Your task to perform on an android device: turn off notifications in google photos Image 0: 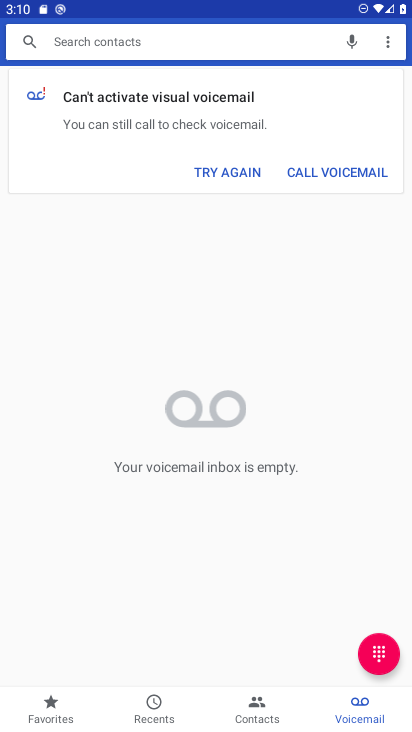
Step 0: press home button
Your task to perform on an android device: turn off notifications in google photos Image 1: 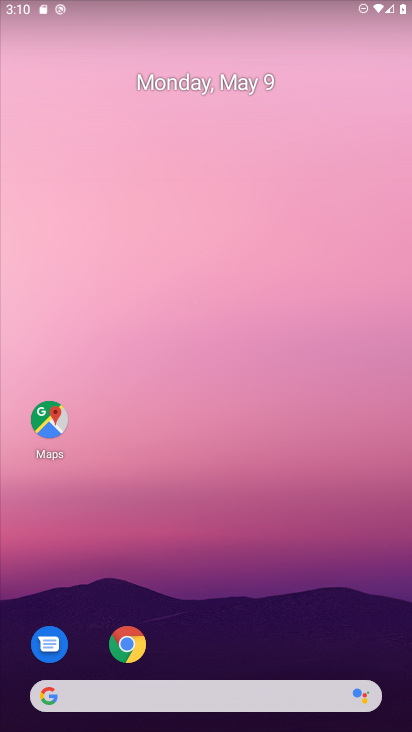
Step 1: click (137, 655)
Your task to perform on an android device: turn off notifications in google photos Image 2: 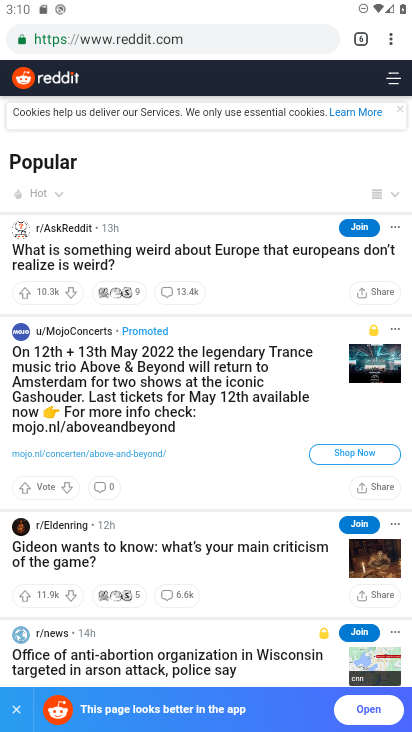
Step 2: click (397, 40)
Your task to perform on an android device: turn off notifications in google photos Image 3: 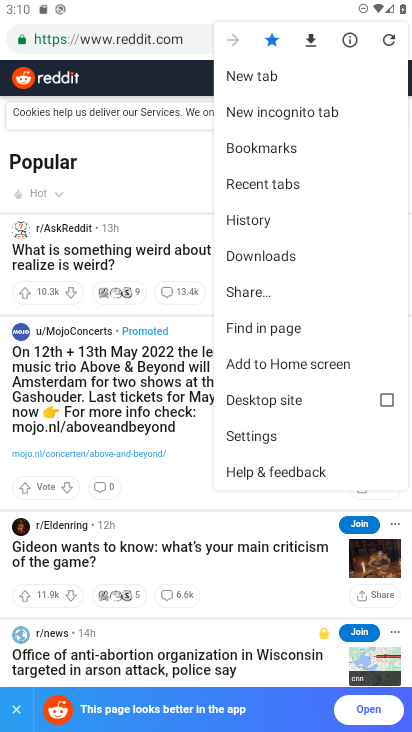
Step 3: press home button
Your task to perform on an android device: turn off notifications in google photos Image 4: 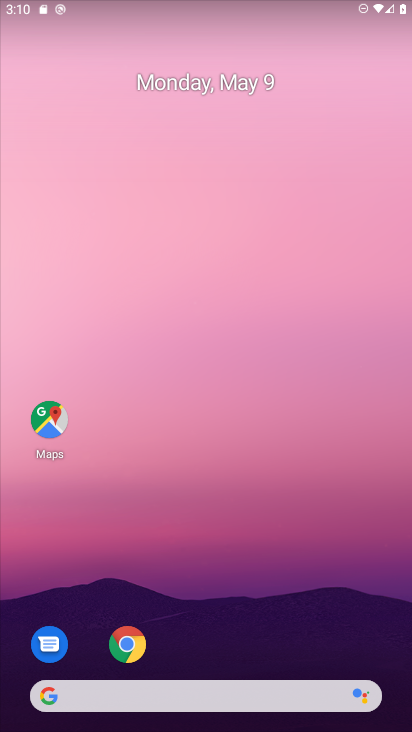
Step 4: drag from (299, 682) to (314, 175)
Your task to perform on an android device: turn off notifications in google photos Image 5: 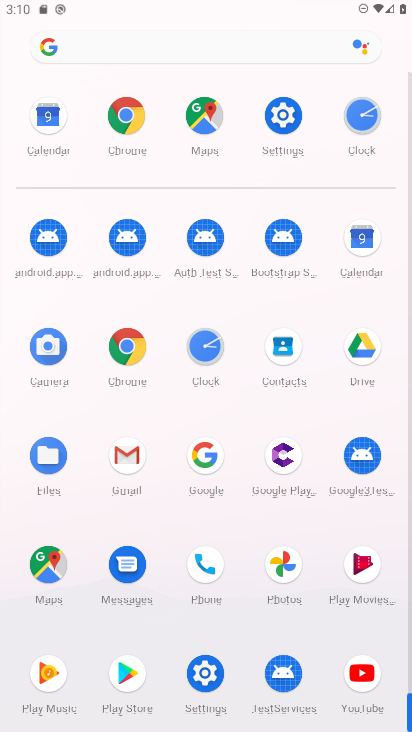
Step 5: click (284, 595)
Your task to perform on an android device: turn off notifications in google photos Image 6: 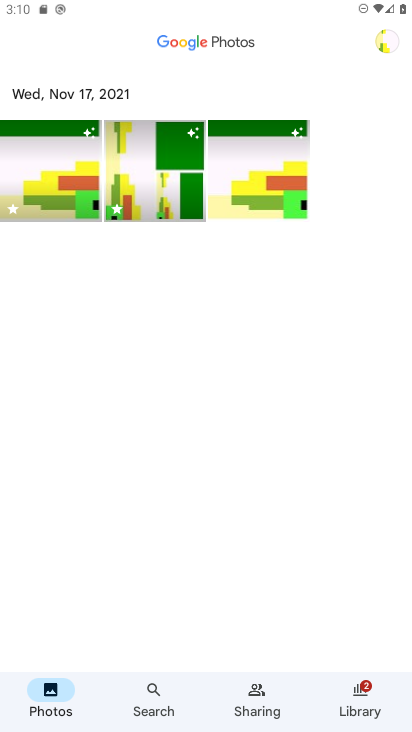
Step 6: click (389, 47)
Your task to perform on an android device: turn off notifications in google photos Image 7: 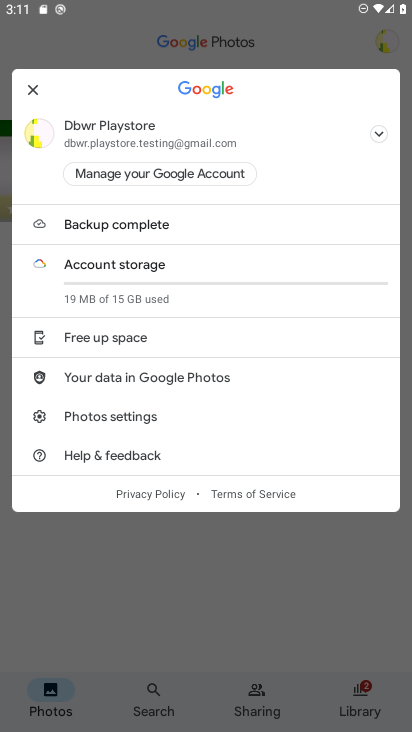
Step 7: click (96, 422)
Your task to perform on an android device: turn off notifications in google photos Image 8: 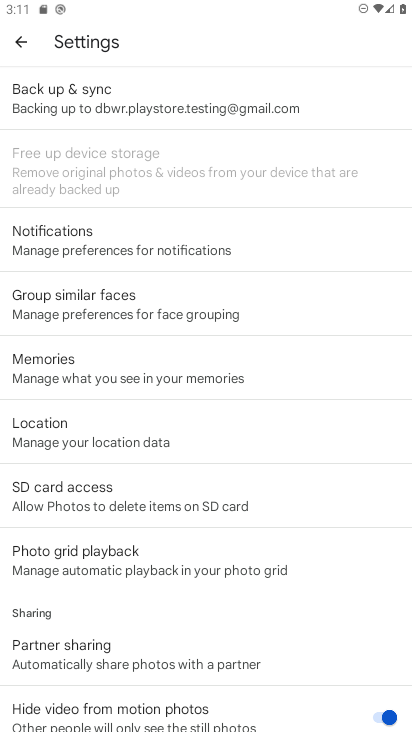
Step 8: click (109, 254)
Your task to perform on an android device: turn off notifications in google photos Image 9: 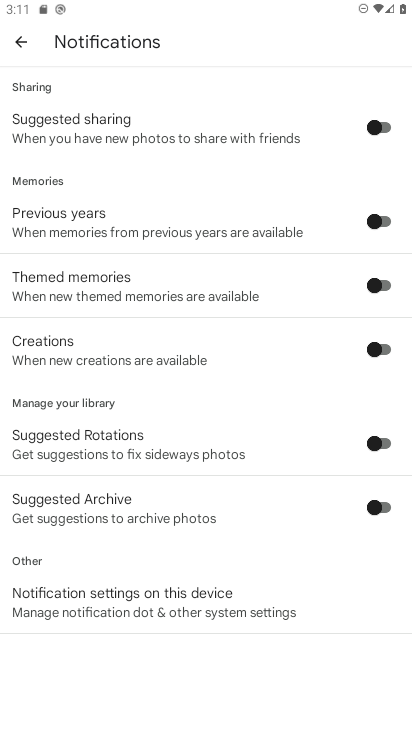
Step 9: task complete